Your task to perform on an android device: Is it going to rain today? Image 0: 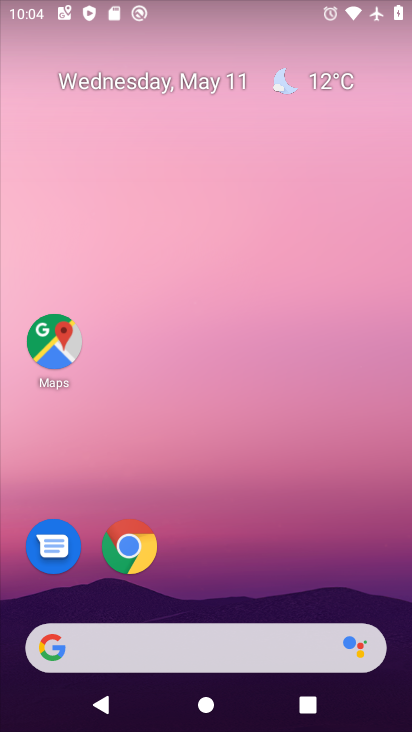
Step 0: click (316, 77)
Your task to perform on an android device: Is it going to rain today? Image 1: 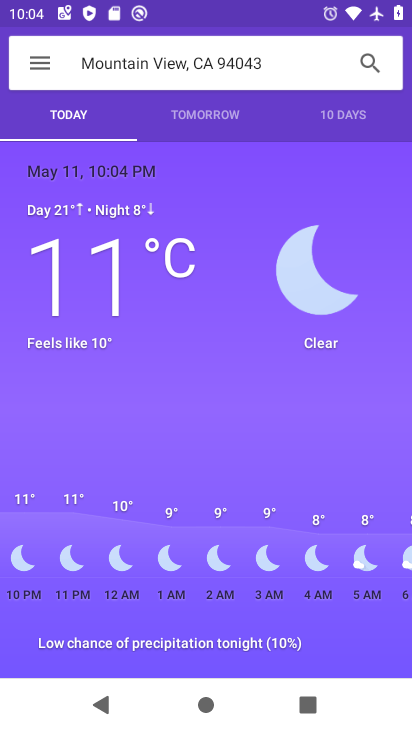
Step 1: task complete